Your task to perform on an android device: set the timer Image 0: 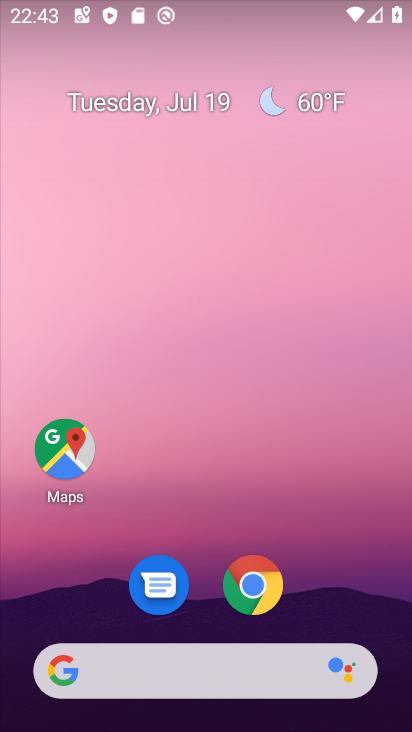
Step 0: drag from (321, 561) to (352, 49)
Your task to perform on an android device: set the timer Image 1: 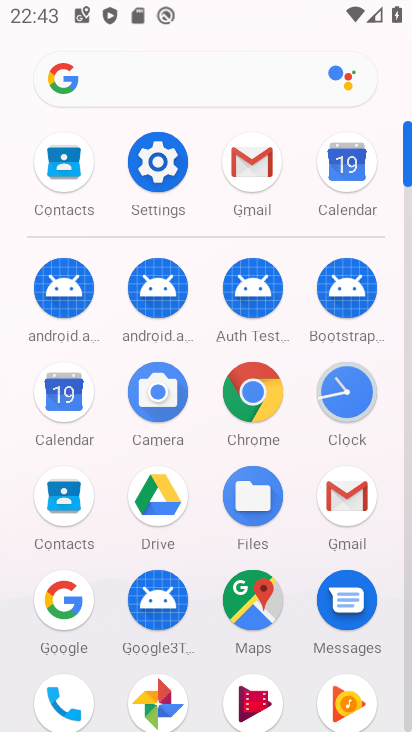
Step 1: click (343, 398)
Your task to perform on an android device: set the timer Image 2: 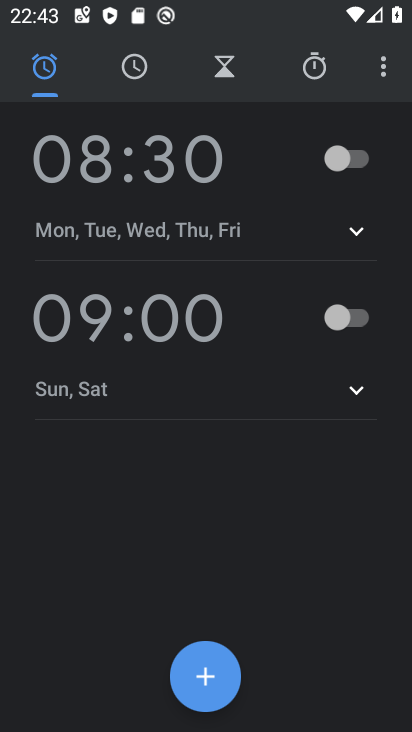
Step 2: click (231, 73)
Your task to perform on an android device: set the timer Image 3: 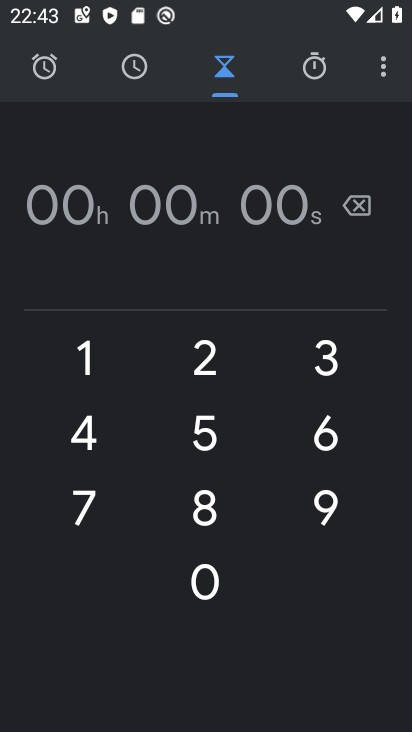
Step 3: click (84, 353)
Your task to perform on an android device: set the timer Image 4: 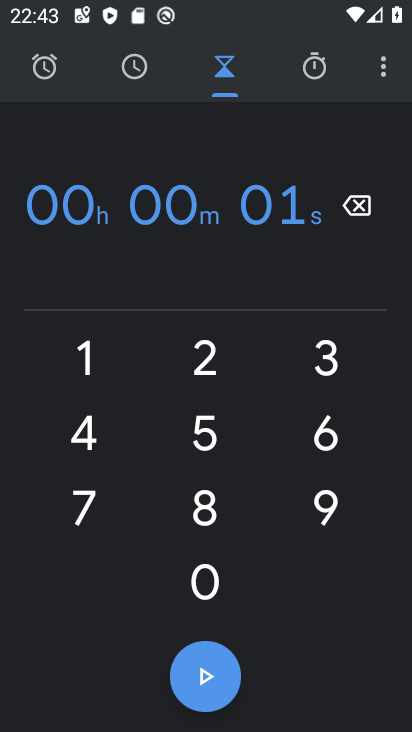
Step 4: task complete